Your task to perform on an android device: open the mobile data screen to see how much data has been used Image 0: 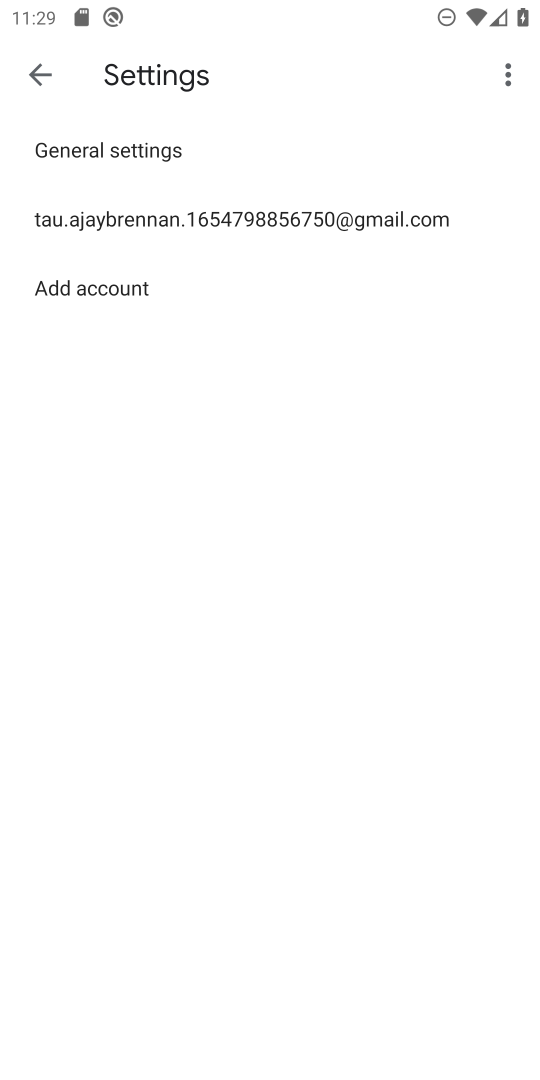
Step 0: press home button
Your task to perform on an android device: open the mobile data screen to see how much data has been used Image 1: 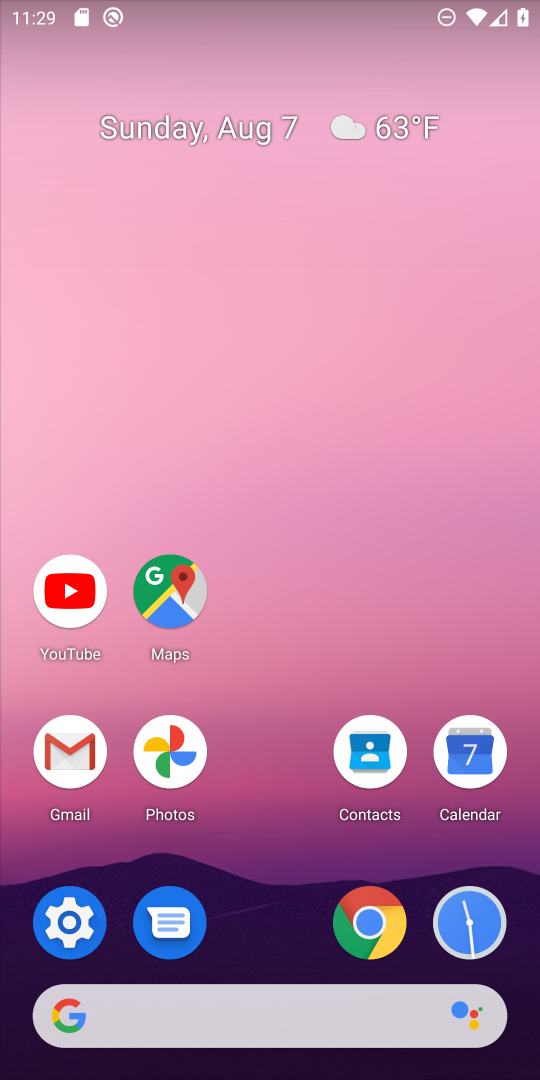
Step 1: click (67, 912)
Your task to perform on an android device: open the mobile data screen to see how much data has been used Image 2: 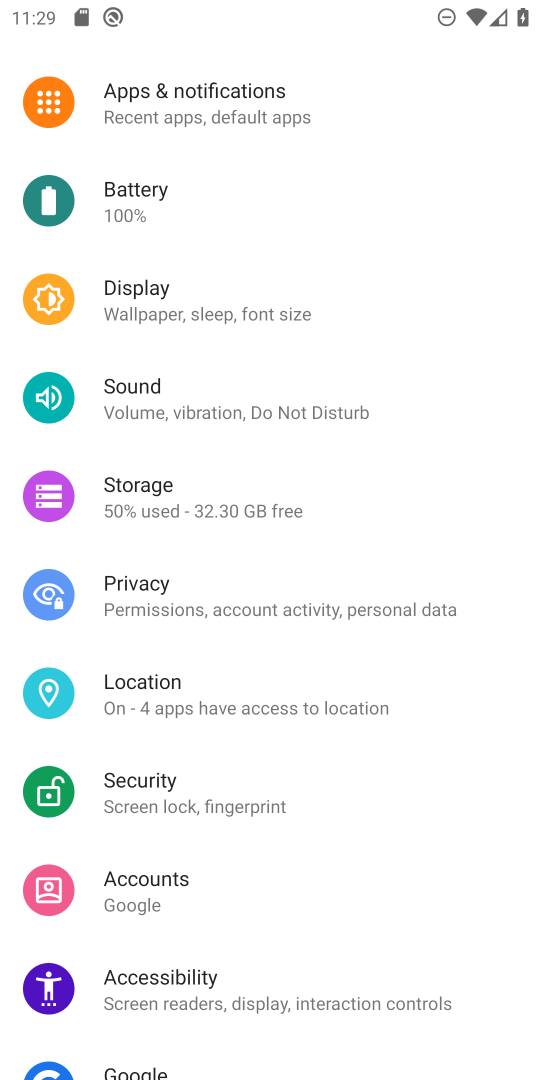
Step 2: drag from (354, 215) to (185, 905)
Your task to perform on an android device: open the mobile data screen to see how much data has been used Image 3: 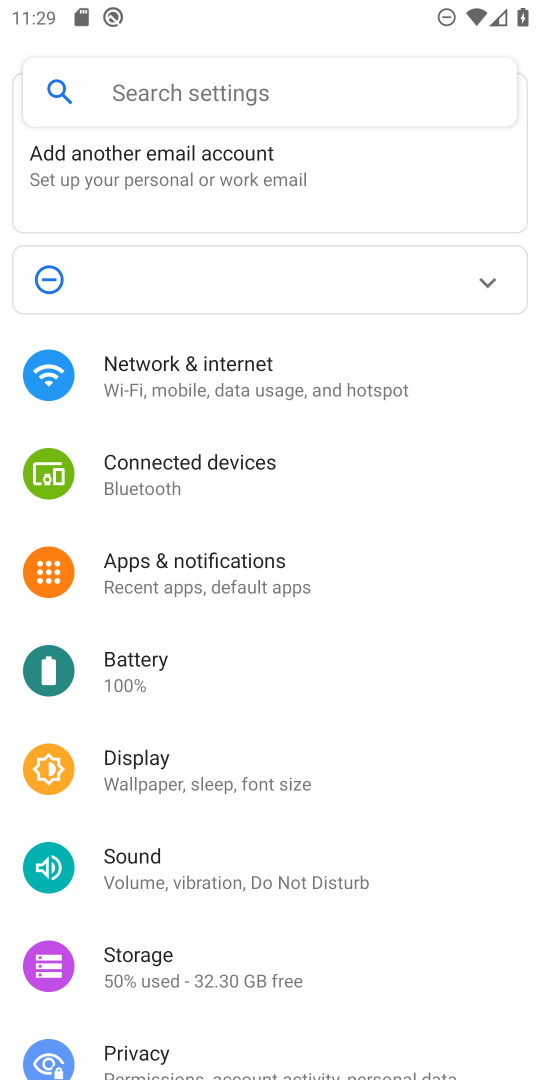
Step 3: click (205, 368)
Your task to perform on an android device: open the mobile data screen to see how much data has been used Image 4: 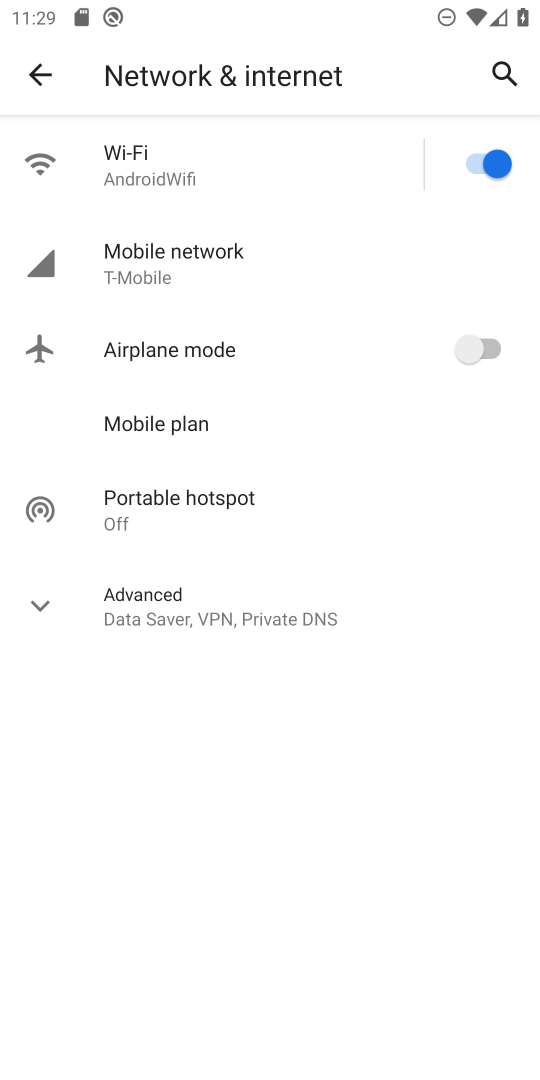
Step 4: click (165, 246)
Your task to perform on an android device: open the mobile data screen to see how much data has been used Image 5: 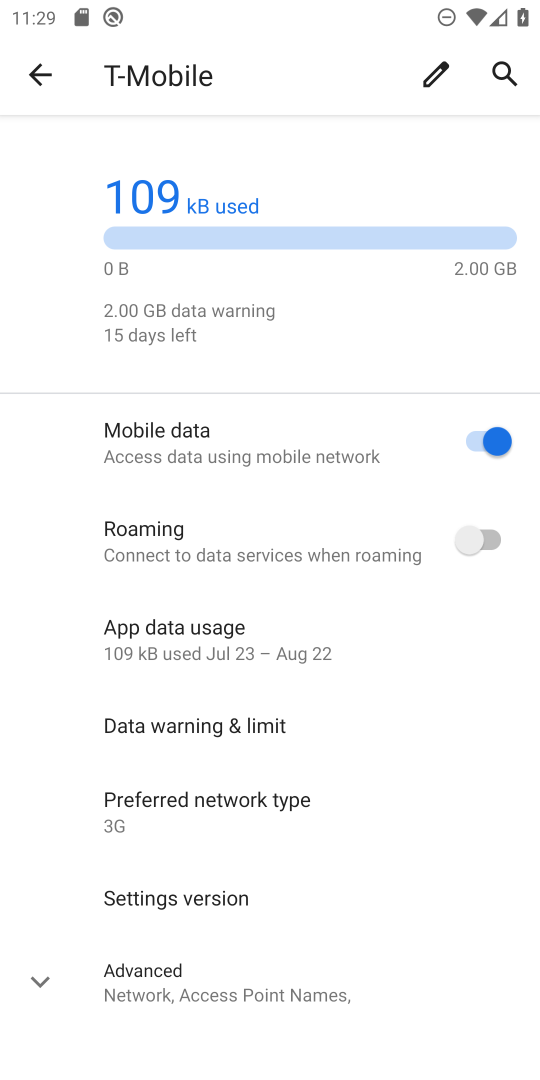
Step 5: task complete